Your task to perform on an android device: uninstall "Venmo" Image 0: 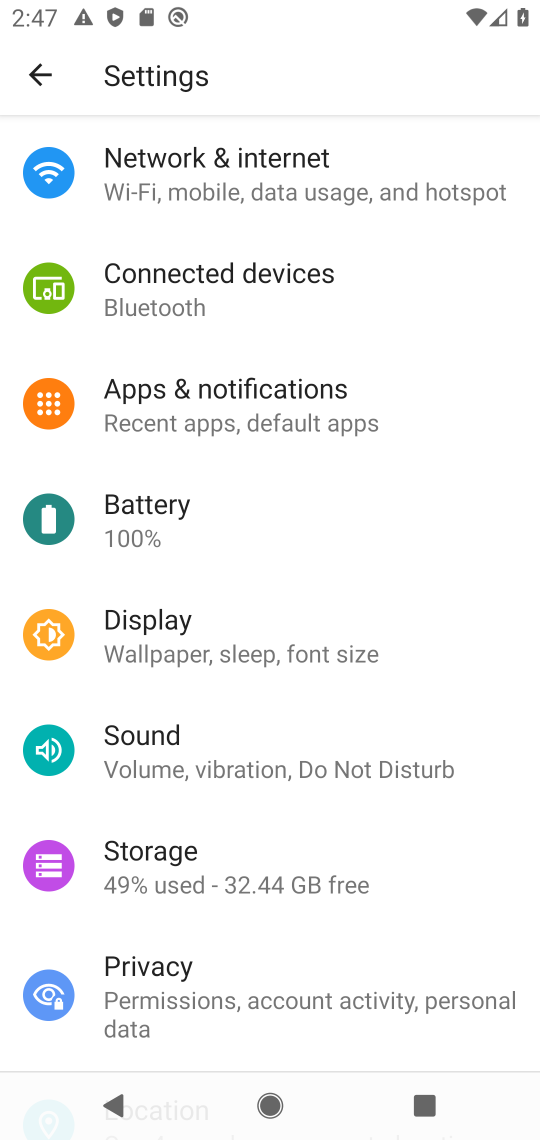
Step 0: press home button
Your task to perform on an android device: uninstall "Venmo" Image 1: 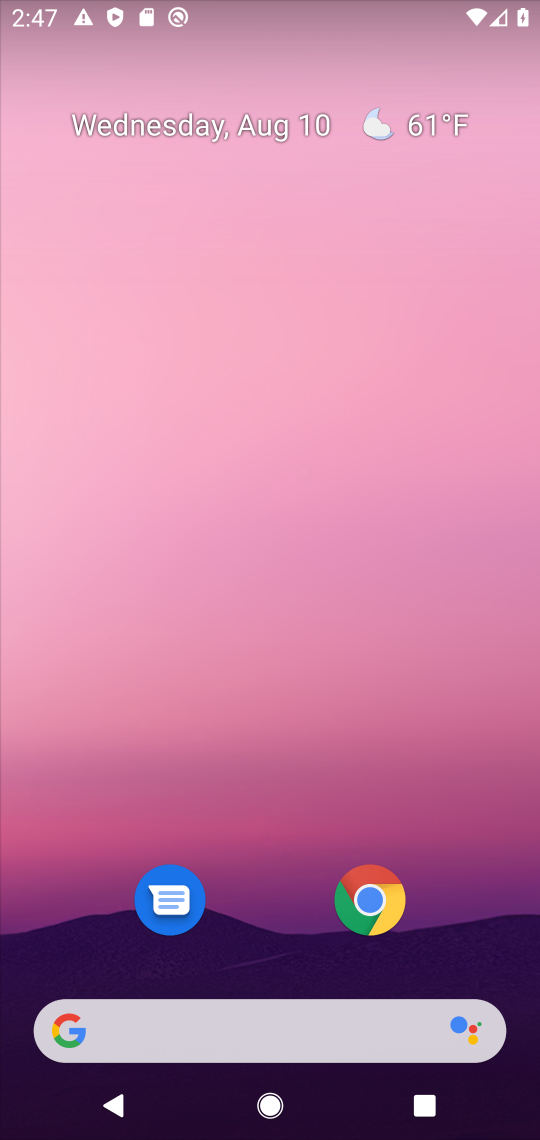
Step 1: drag from (267, 963) to (255, 133)
Your task to perform on an android device: uninstall "Venmo" Image 2: 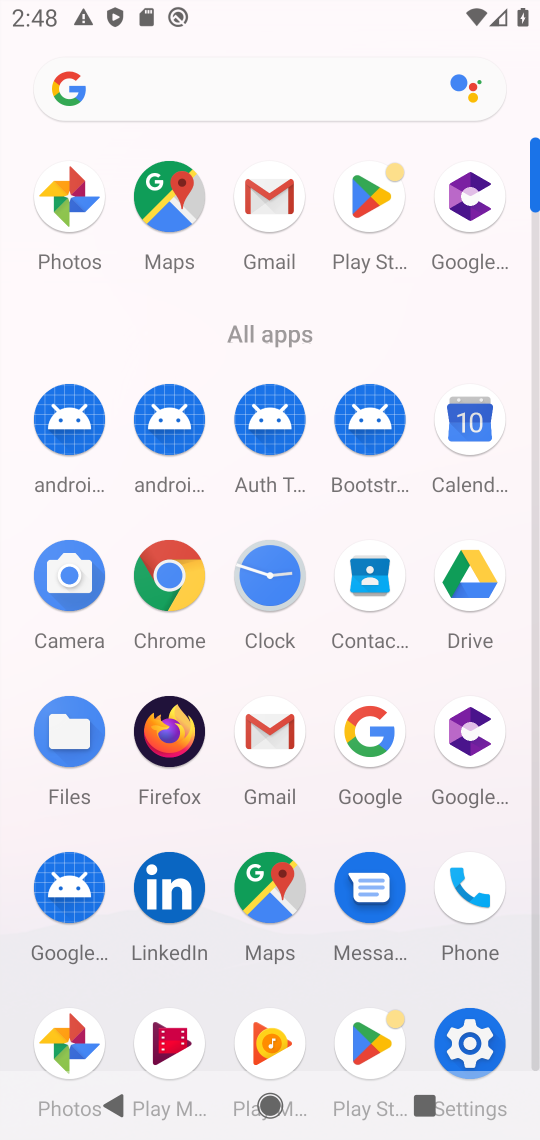
Step 2: click (388, 219)
Your task to perform on an android device: uninstall "Venmo" Image 3: 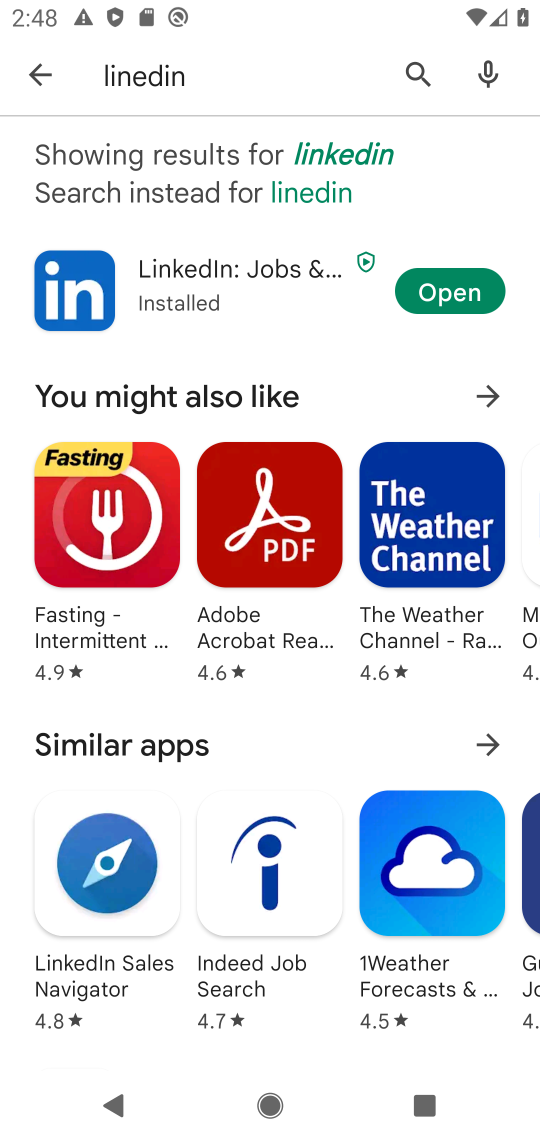
Step 3: click (401, 73)
Your task to perform on an android device: uninstall "Venmo" Image 4: 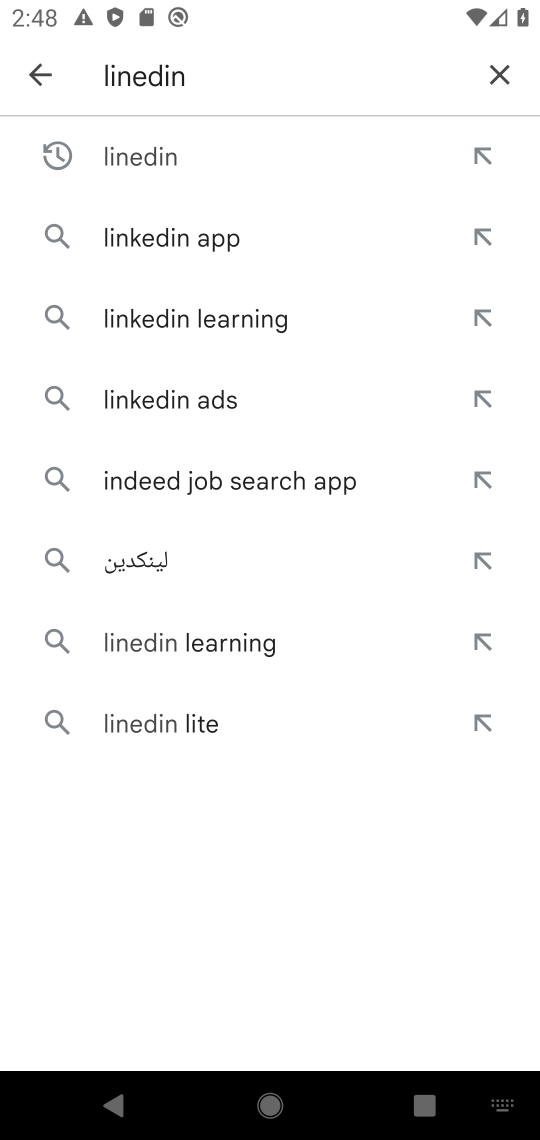
Step 4: click (485, 98)
Your task to perform on an android device: uninstall "Venmo" Image 5: 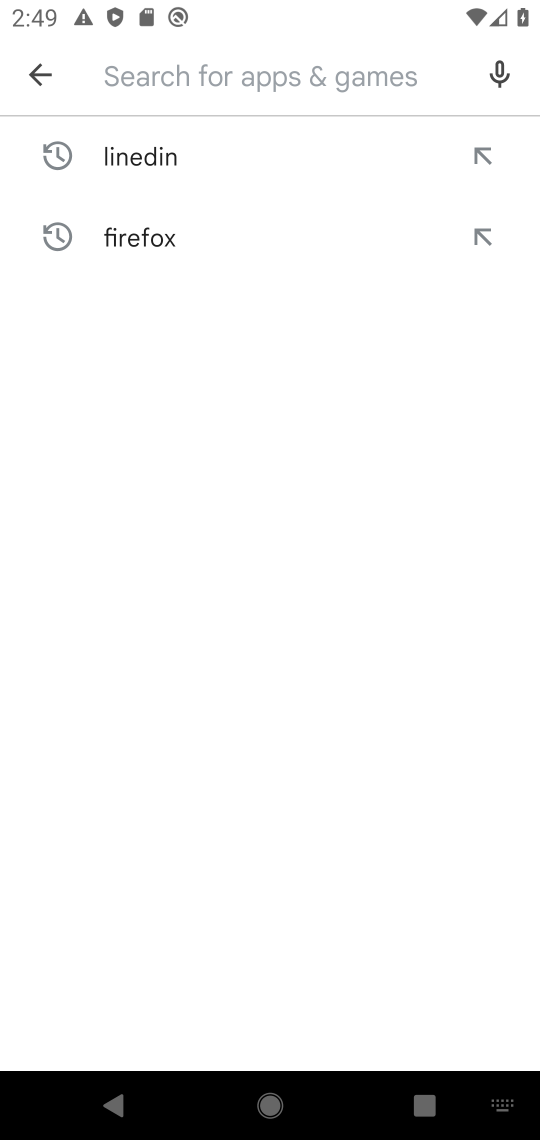
Step 5: type "venmo"
Your task to perform on an android device: uninstall "Venmo" Image 6: 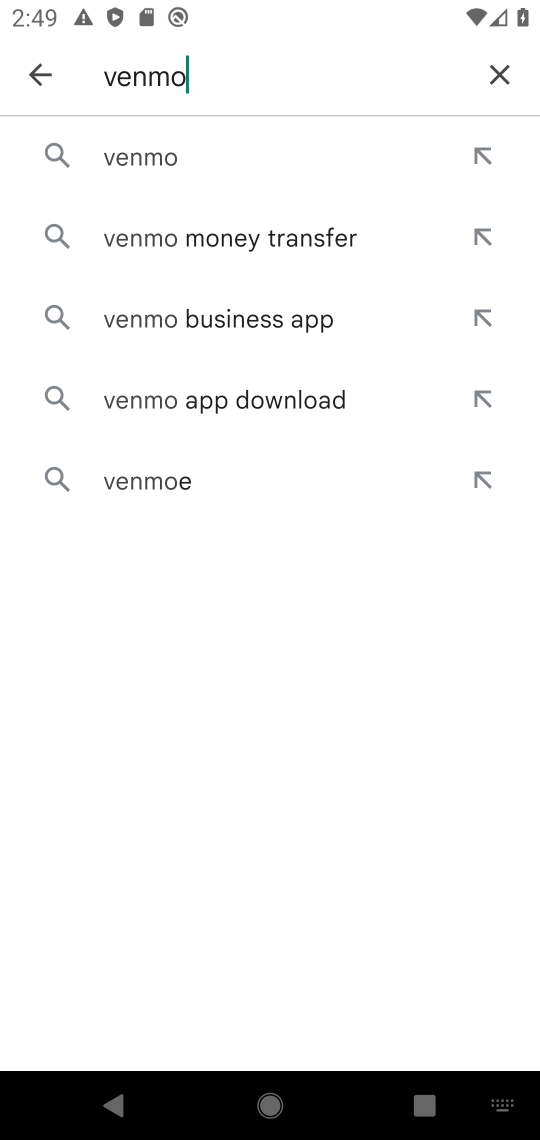
Step 6: click (238, 168)
Your task to perform on an android device: uninstall "Venmo" Image 7: 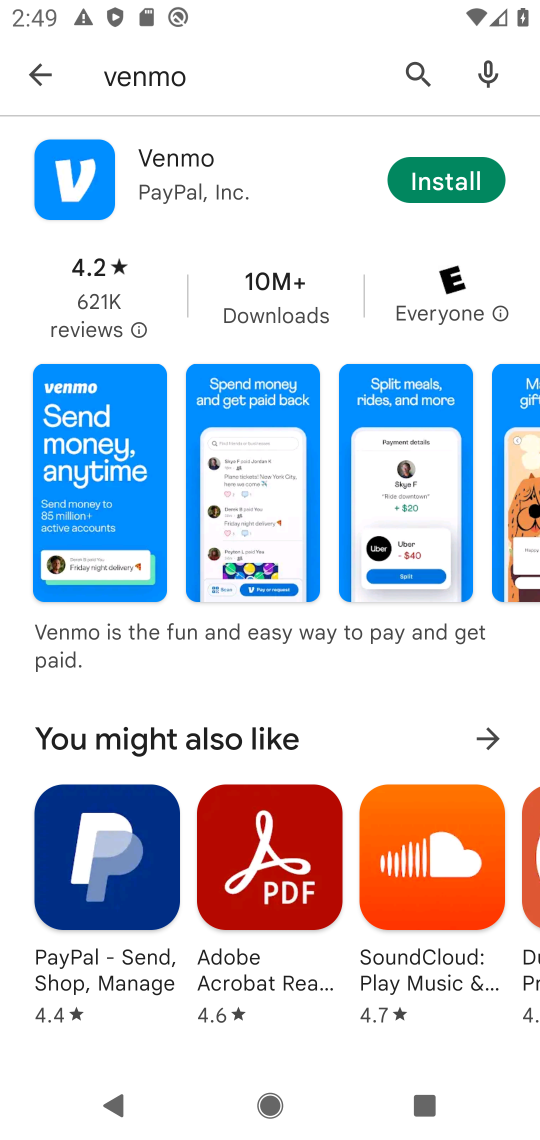
Step 7: click (442, 187)
Your task to perform on an android device: uninstall "Venmo" Image 8: 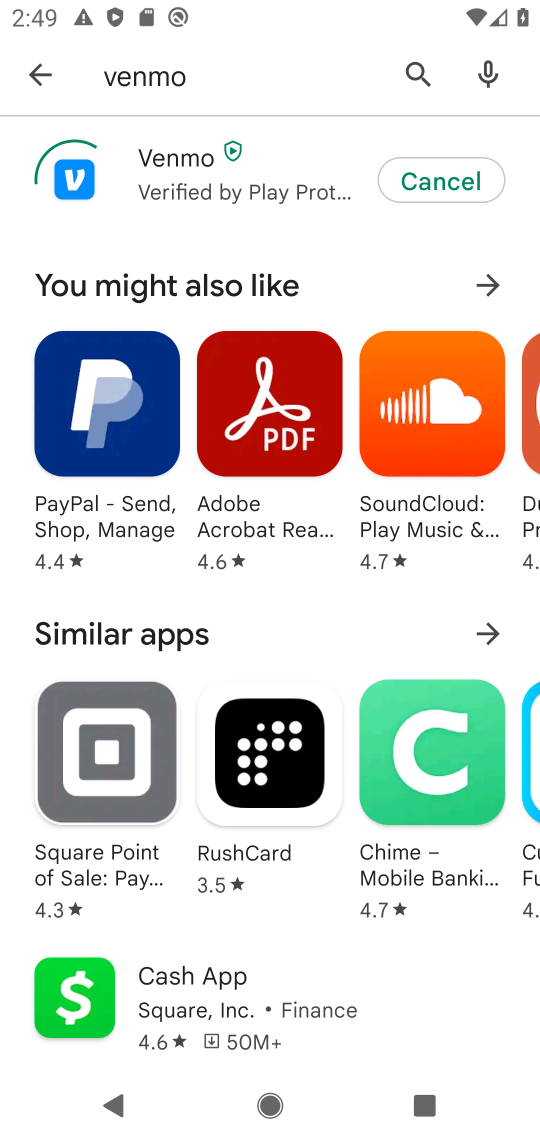
Step 8: task complete